Your task to perform on an android device: Open calendar and show me the first week of next month Image 0: 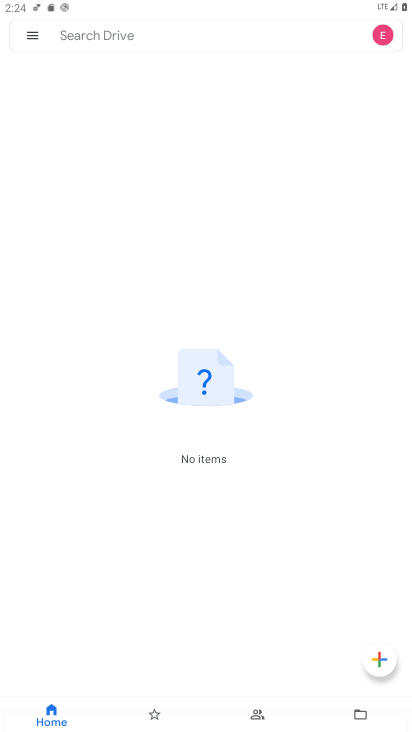
Step 0: press home button
Your task to perform on an android device: Open calendar and show me the first week of next month Image 1: 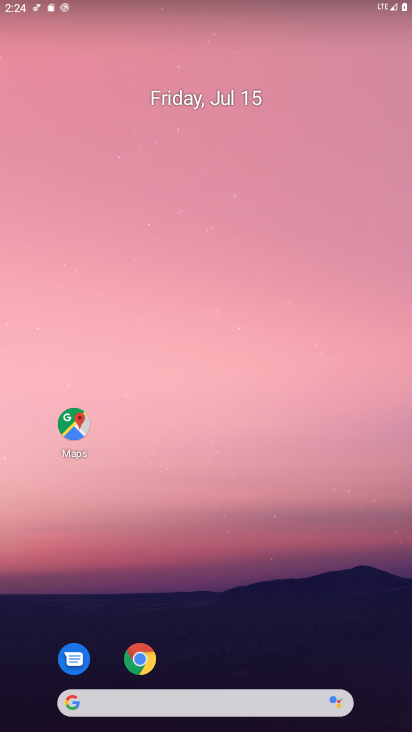
Step 1: drag from (206, 664) to (232, 204)
Your task to perform on an android device: Open calendar and show me the first week of next month Image 2: 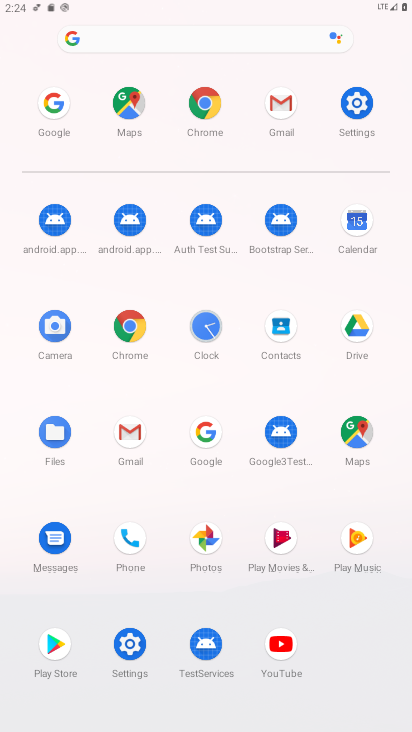
Step 2: click (351, 211)
Your task to perform on an android device: Open calendar and show me the first week of next month Image 3: 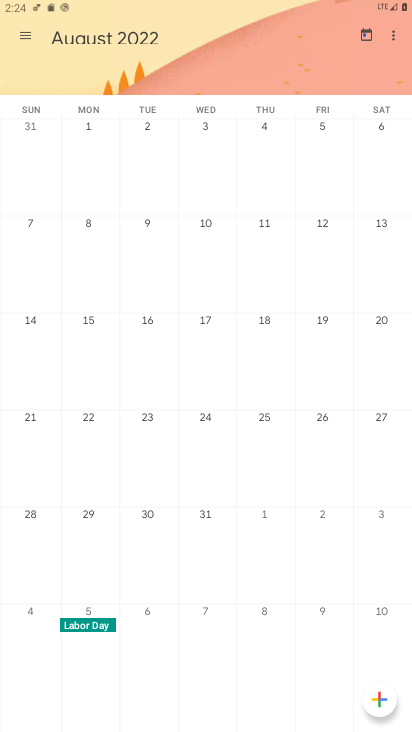
Step 3: click (351, 211)
Your task to perform on an android device: Open calendar and show me the first week of next month Image 4: 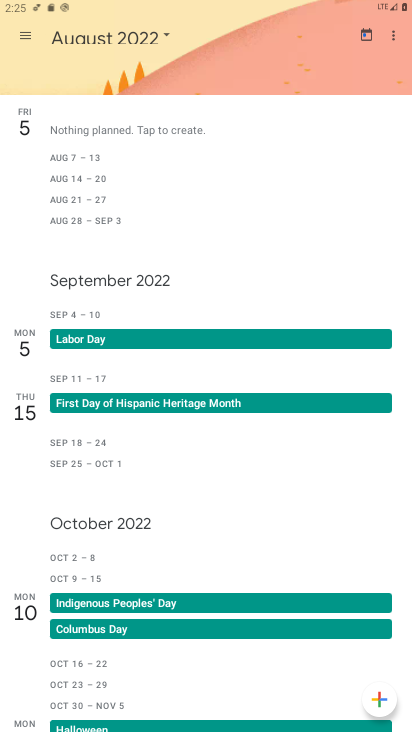
Step 4: task complete